Your task to perform on an android device: install app "Google Find My Device" Image 0: 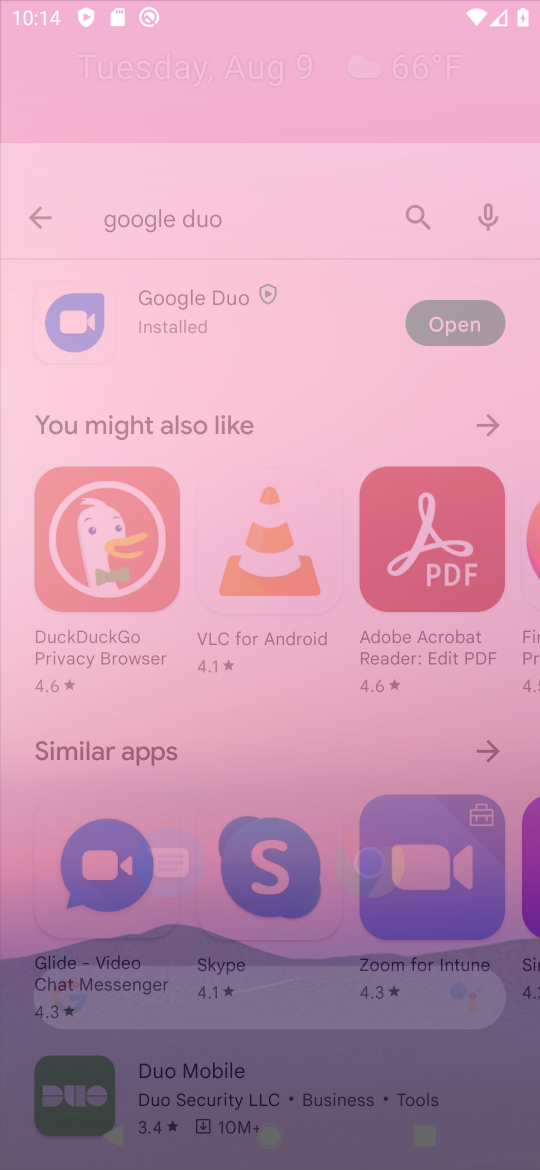
Step 0: press home button
Your task to perform on an android device: install app "Google Find My Device" Image 1: 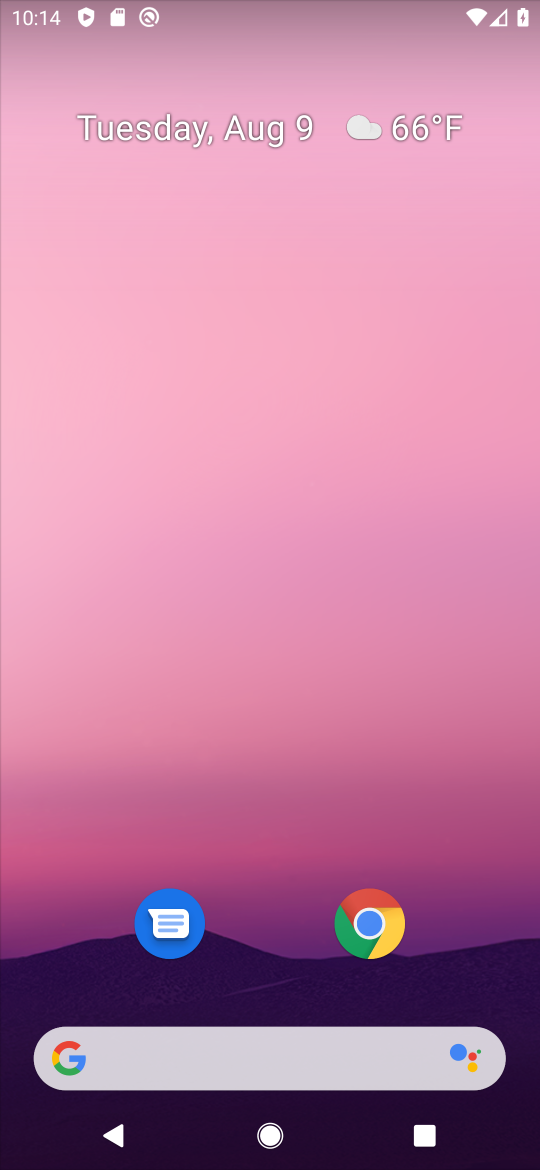
Step 1: drag from (279, 955) to (342, 193)
Your task to perform on an android device: install app "Google Find My Device" Image 2: 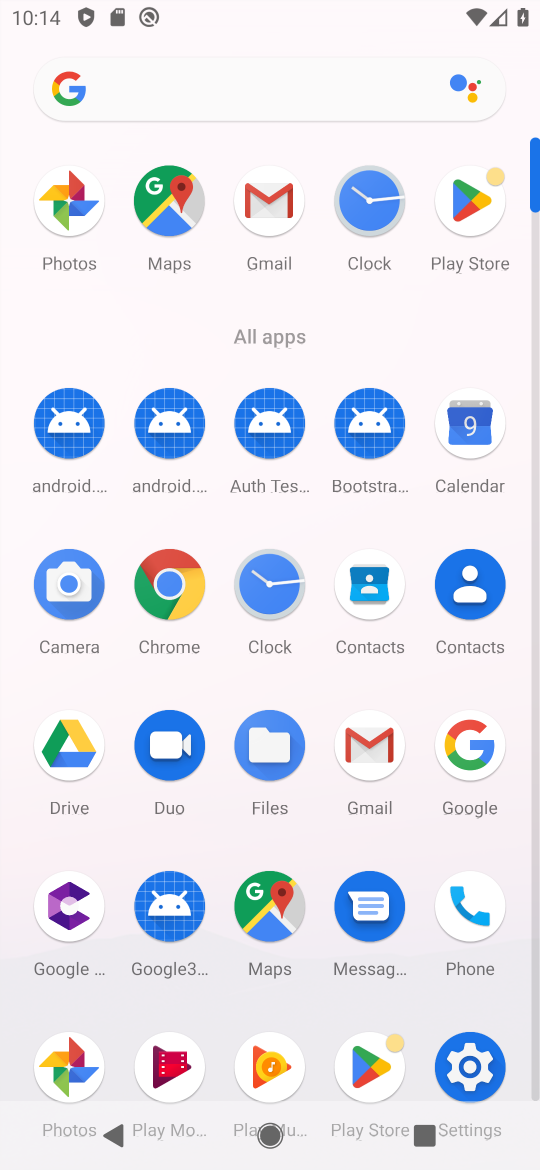
Step 2: click (371, 1059)
Your task to perform on an android device: install app "Google Find My Device" Image 3: 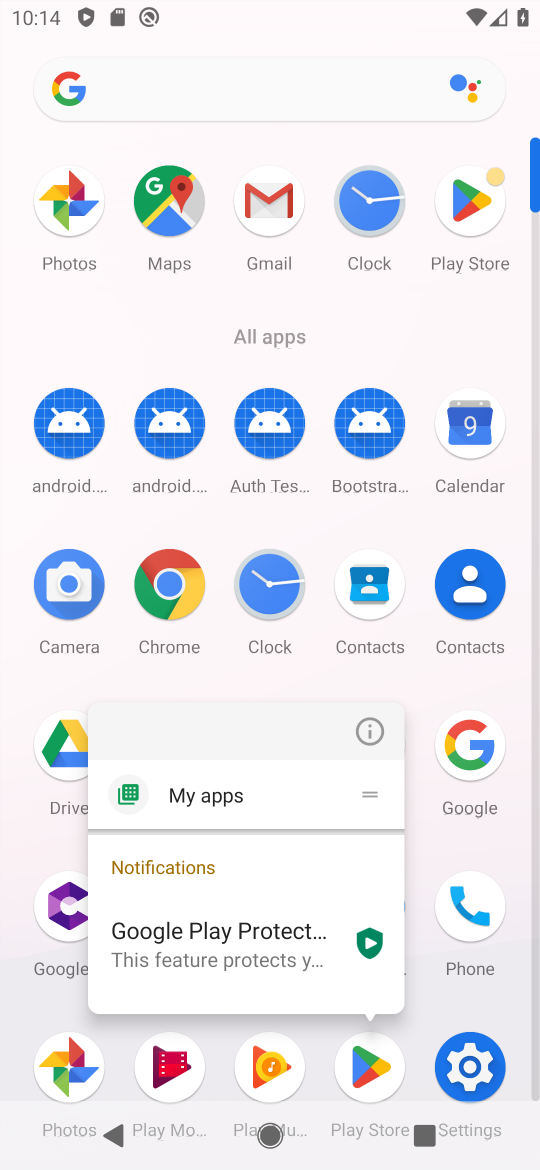
Step 3: click (368, 1061)
Your task to perform on an android device: install app "Google Find My Device" Image 4: 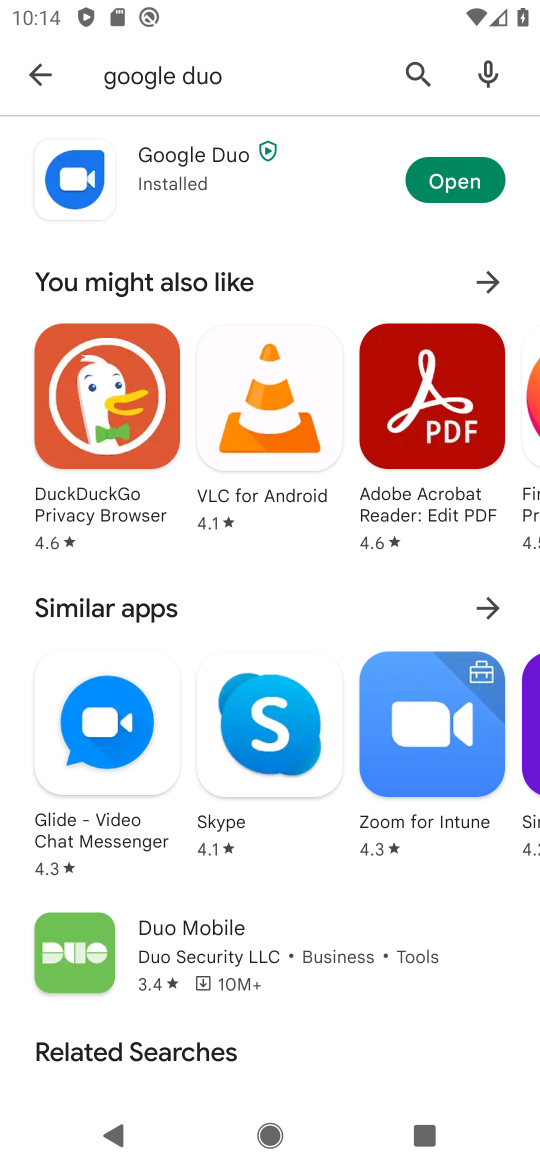
Step 4: click (418, 71)
Your task to perform on an android device: install app "Google Find My Device" Image 5: 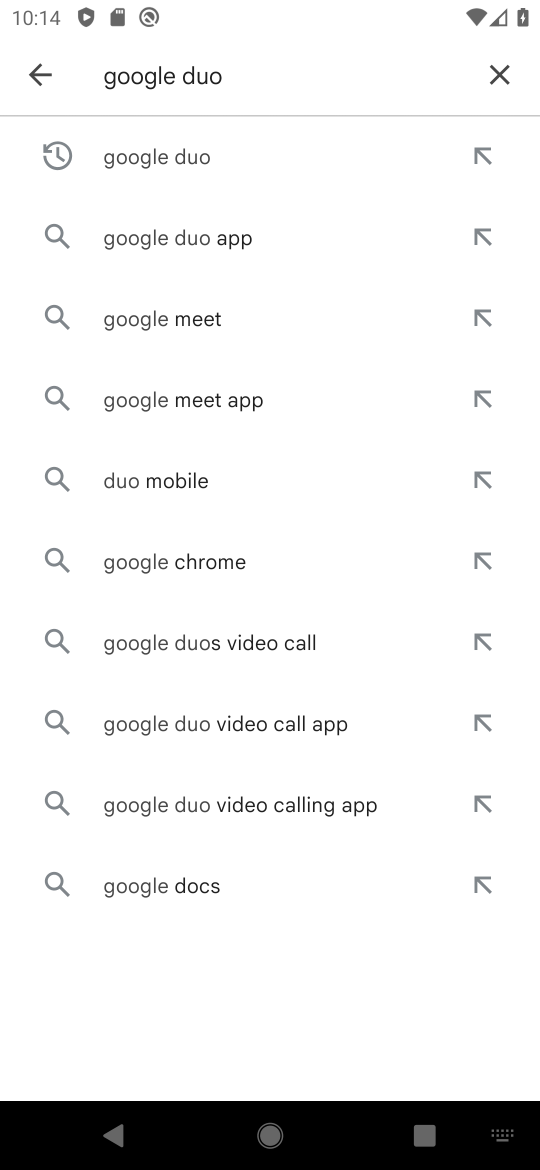
Step 5: click (482, 69)
Your task to perform on an android device: install app "Google Find My Device" Image 6: 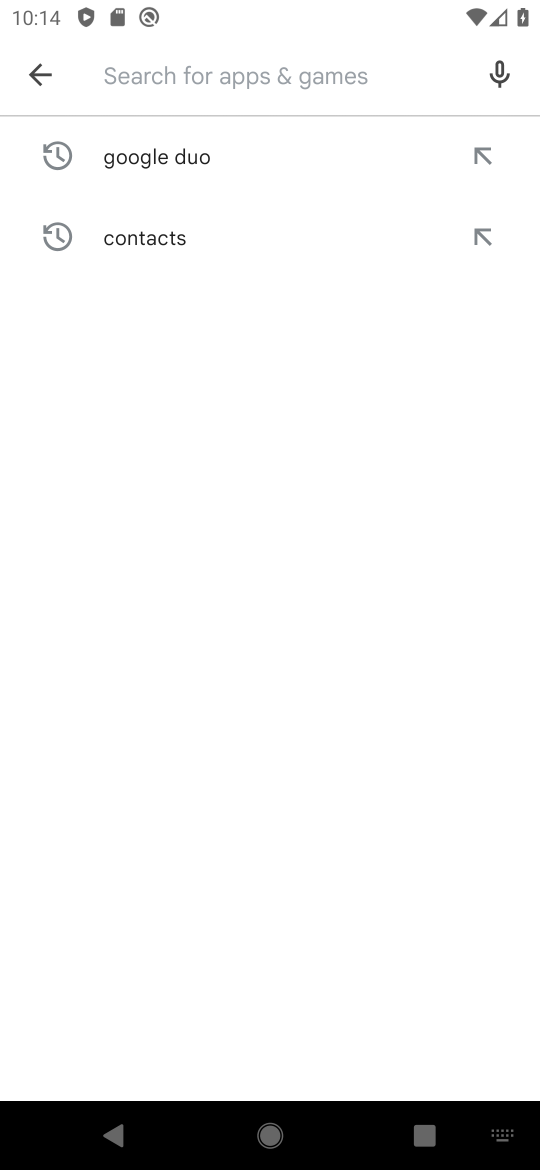
Step 6: type "Google Find My Device"
Your task to perform on an android device: install app "Google Find My Device" Image 7: 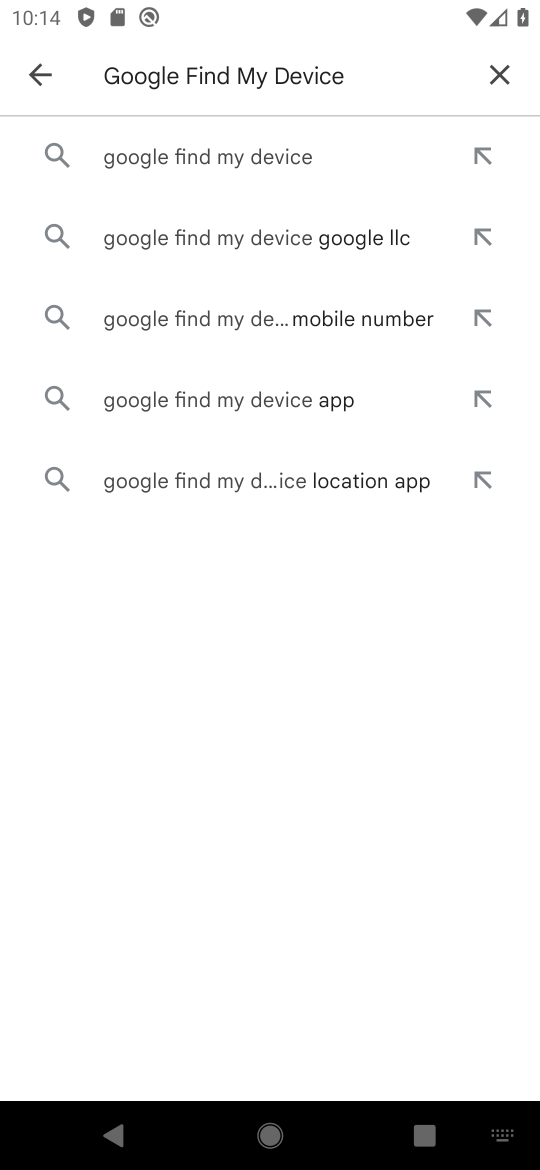
Step 7: click (324, 151)
Your task to perform on an android device: install app "Google Find My Device" Image 8: 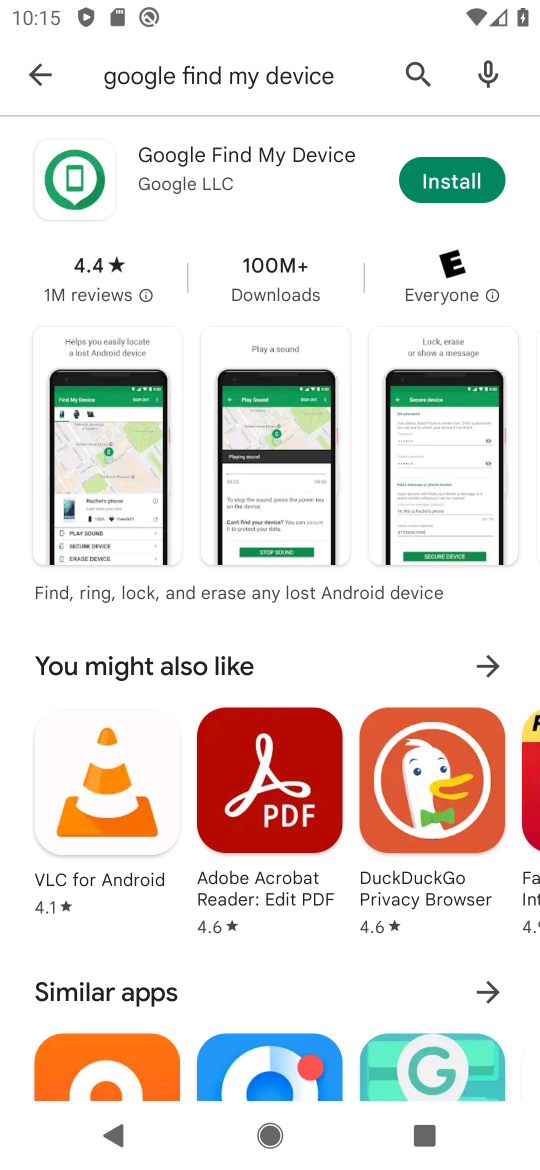
Step 8: click (440, 170)
Your task to perform on an android device: install app "Google Find My Device" Image 9: 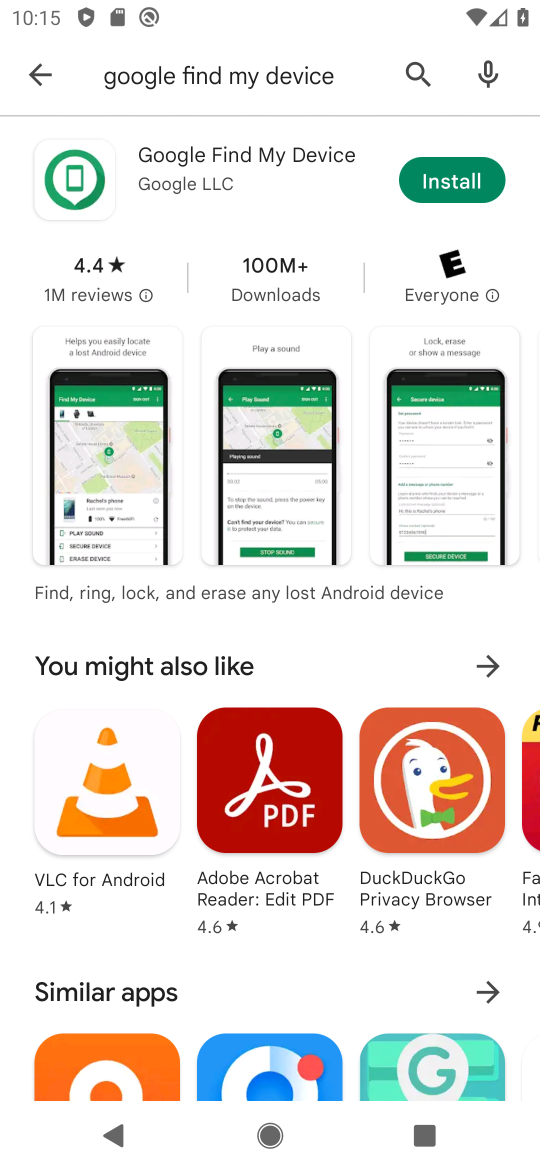
Step 9: click (455, 174)
Your task to perform on an android device: install app "Google Find My Device" Image 10: 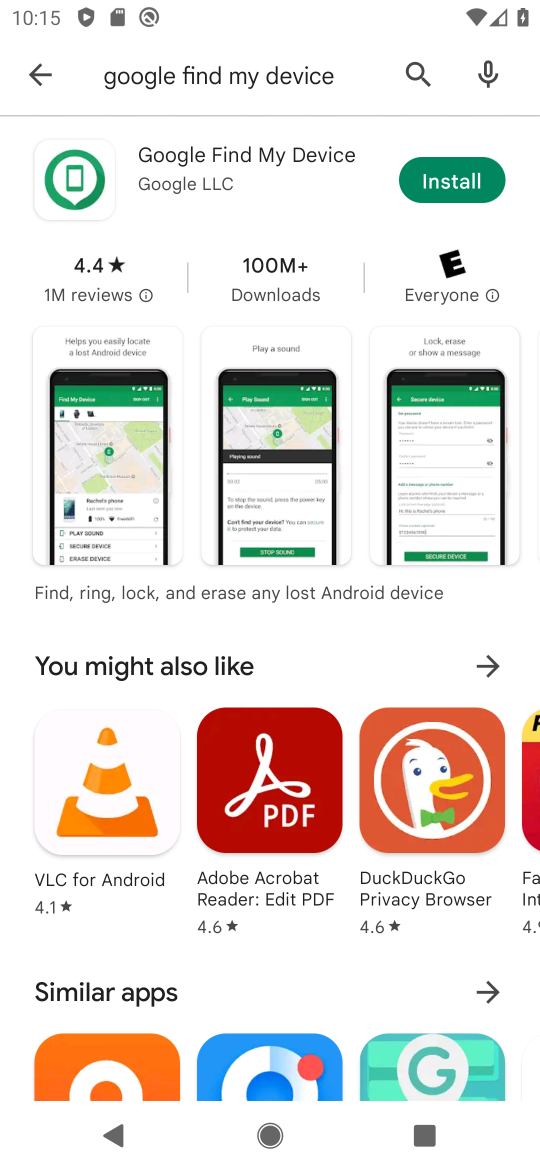
Step 10: click (448, 172)
Your task to perform on an android device: install app "Google Find My Device" Image 11: 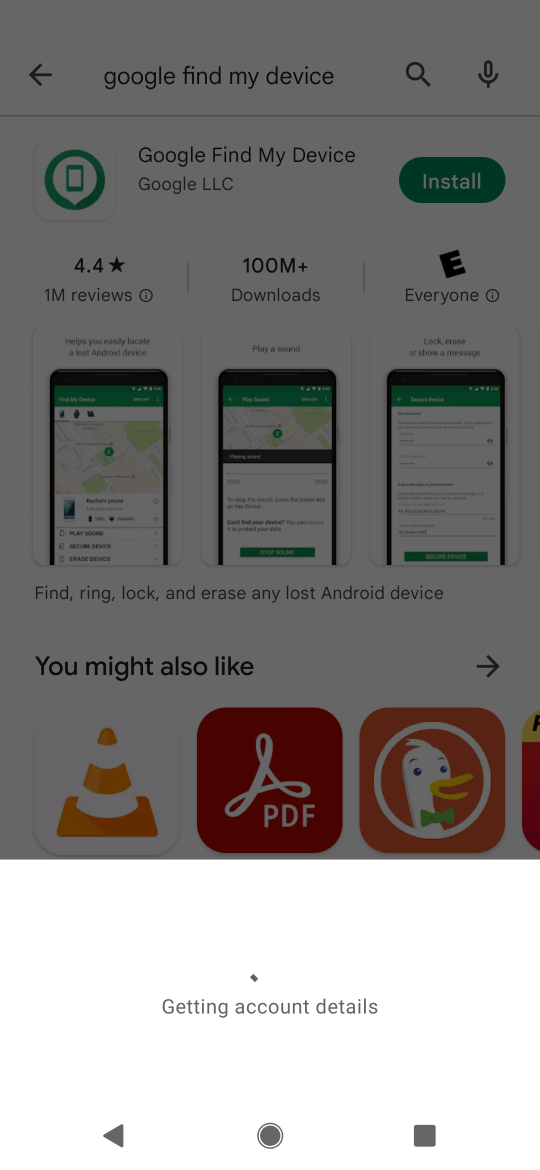
Step 11: click (228, 618)
Your task to perform on an android device: install app "Google Find My Device" Image 12: 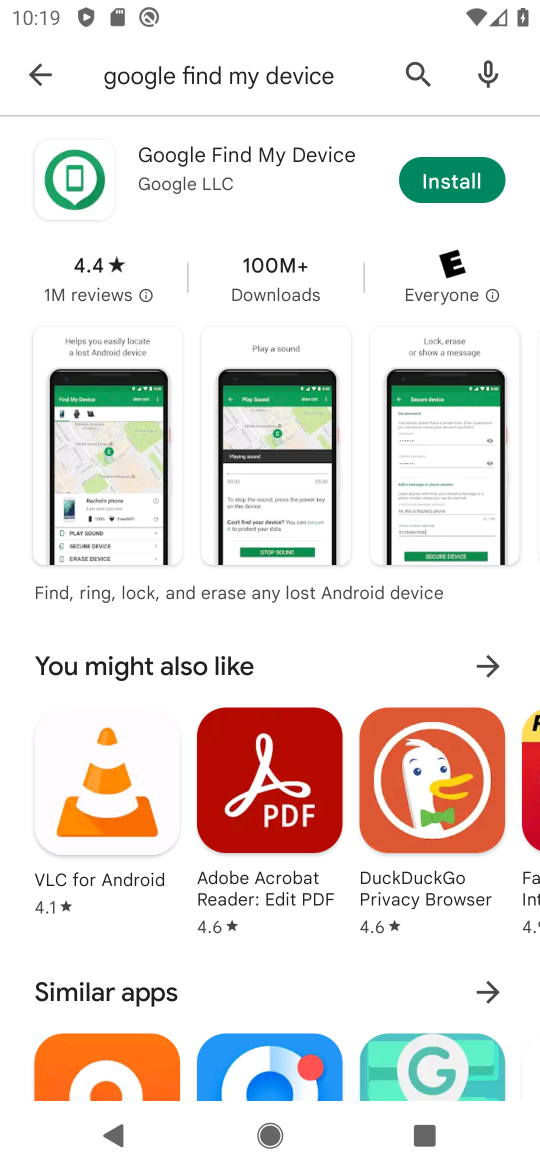
Step 12: click (447, 176)
Your task to perform on an android device: install app "Google Find My Device" Image 13: 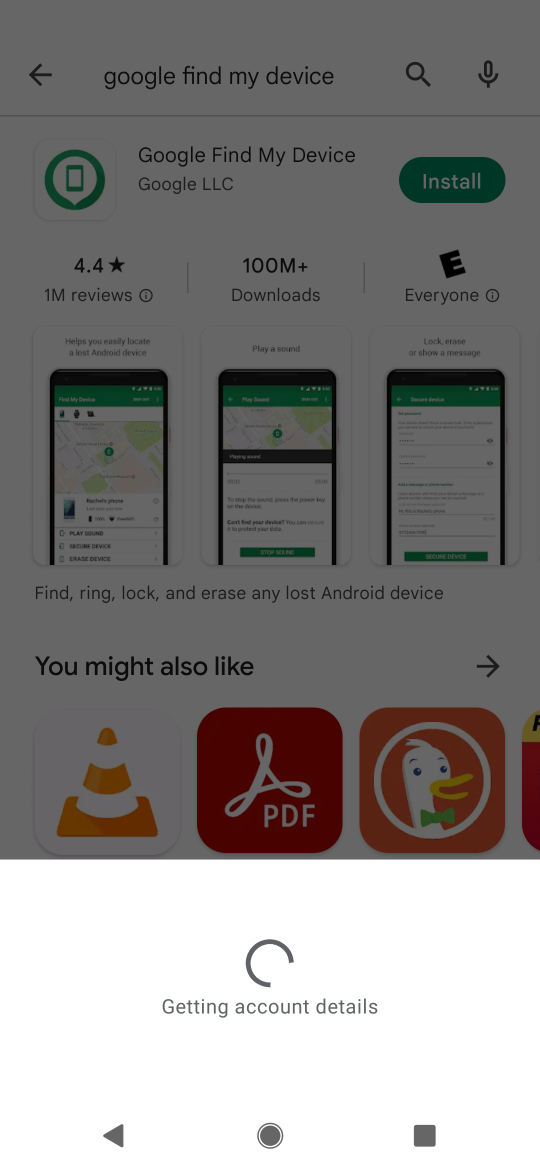
Step 13: task complete